Your task to perform on an android device: toggle notifications settings in the gmail app Image 0: 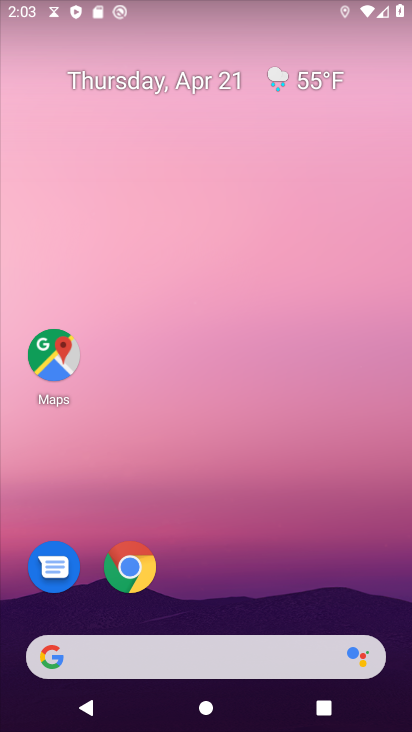
Step 0: drag from (197, 656) to (361, 77)
Your task to perform on an android device: toggle notifications settings in the gmail app Image 1: 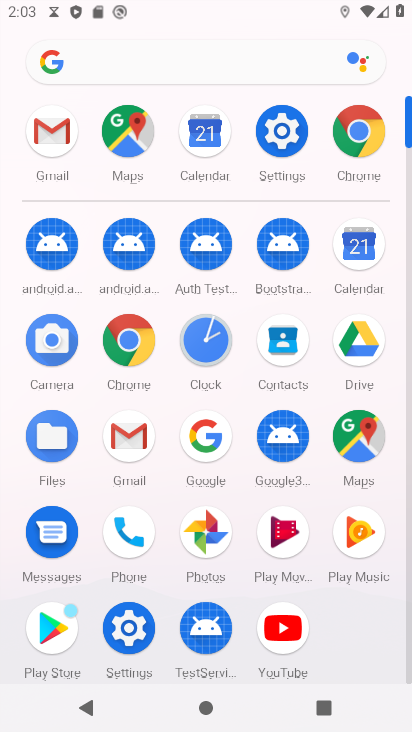
Step 1: click (140, 448)
Your task to perform on an android device: toggle notifications settings in the gmail app Image 2: 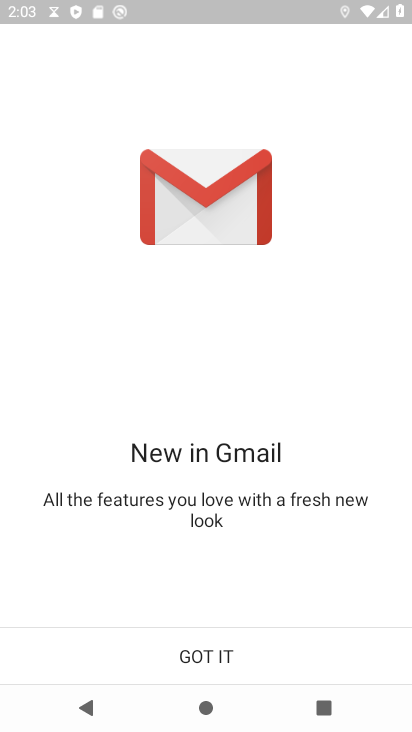
Step 2: click (204, 663)
Your task to perform on an android device: toggle notifications settings in the gmail app Image 3: 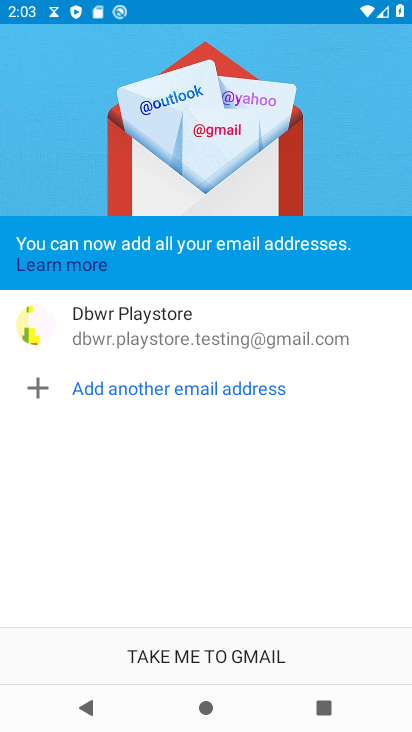
Step 3: click (204, 663)
Your task to perform on an android device: toggle notifications settings in the gmail app Image 4: 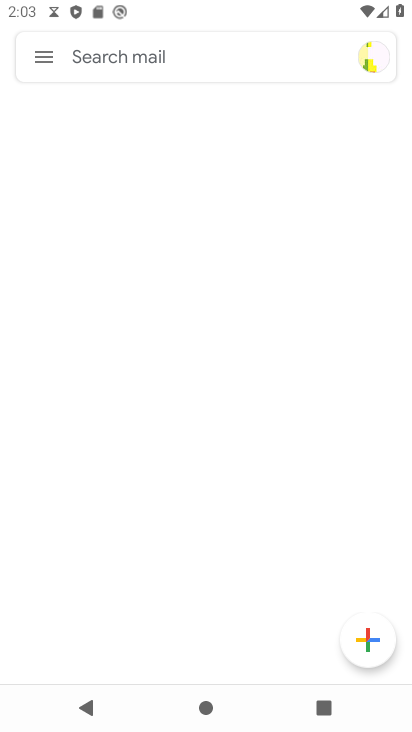
Step 4: click (45, 56)
Your task to perform on an android device: toggle notifications settings in the gmail app Image 5: 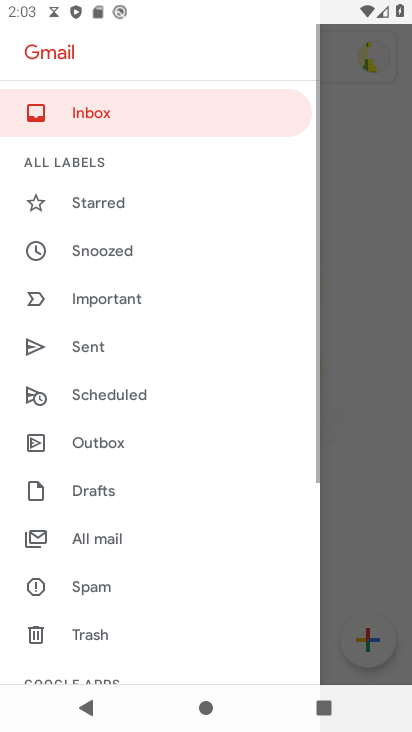
Step 5: drag from (154, 533) to (262, 139)
Your task to perform on an android device: toggle notifications settings in the gmail app Image 6: 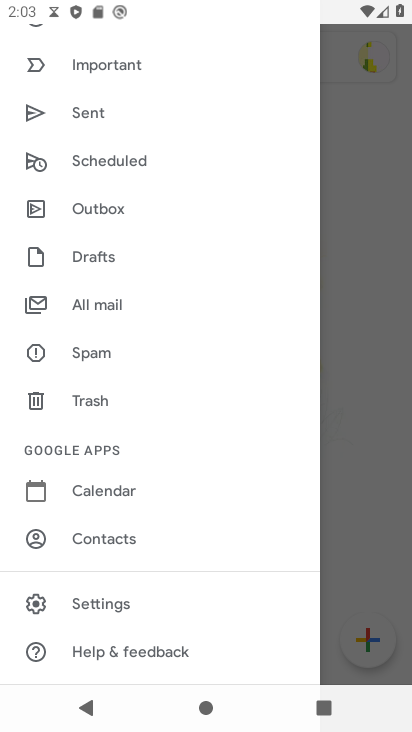
Step 6: click (106, 604)
Your task to perform on an android device: toggle notifications settings in the gmail app Image 7: 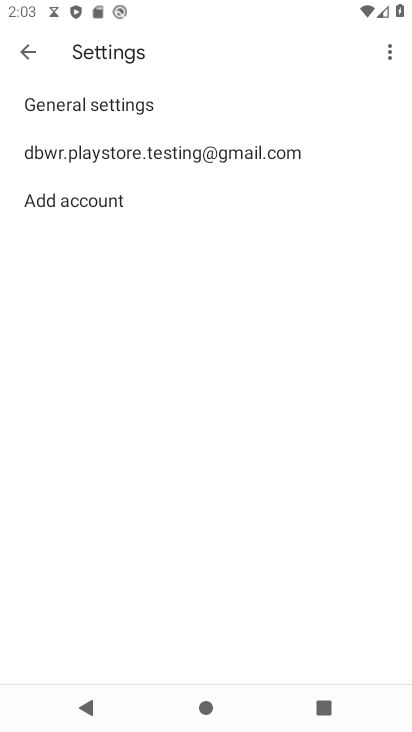
Step 7: click (198, 149)
Your task to perform on an android device: toggle notifications settings in the gmail app Image 8: 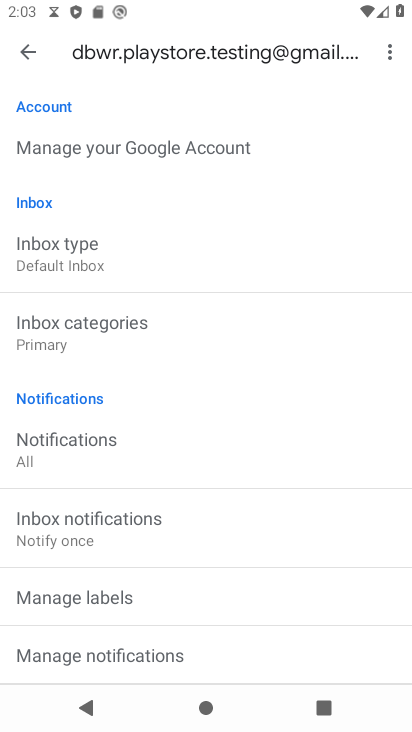
Step 8: click (92, 459)
Your task to perform on an android device: toggle notifications settings in the gmail app Image 9: 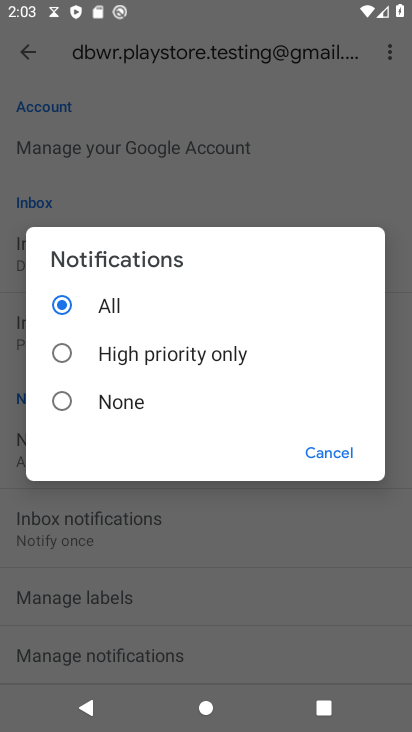
Step 9: click (65, 403)
Your task to perform on an android device: toggle notifications settings in the gmail app Image 10: 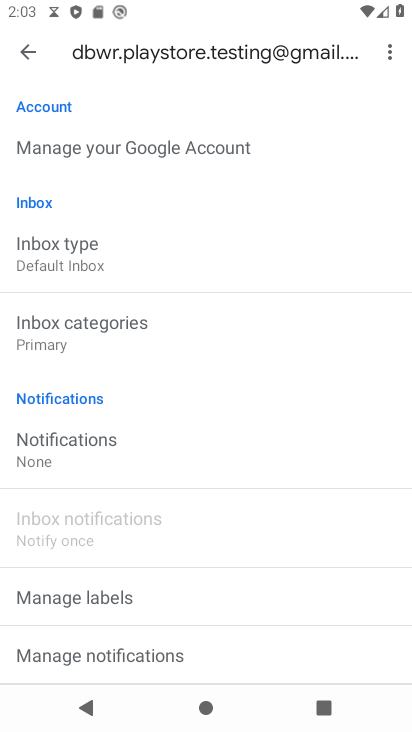
Step 10: task complete